Your task to perform on an android device: open wifi settings Image 0: 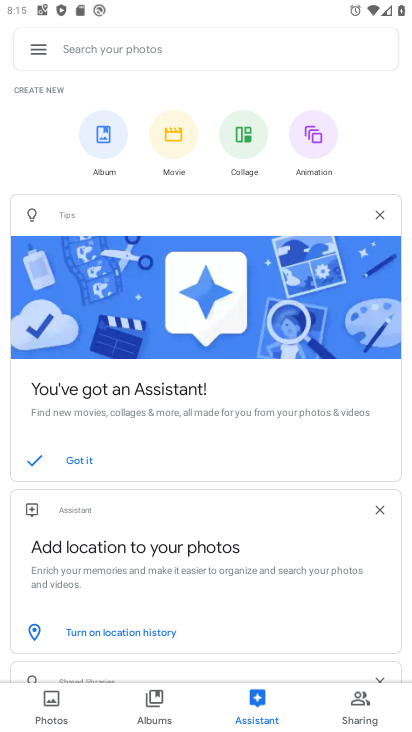
Step 0: press home button
Your task to perform on an android device: open wifi settings Image 1: 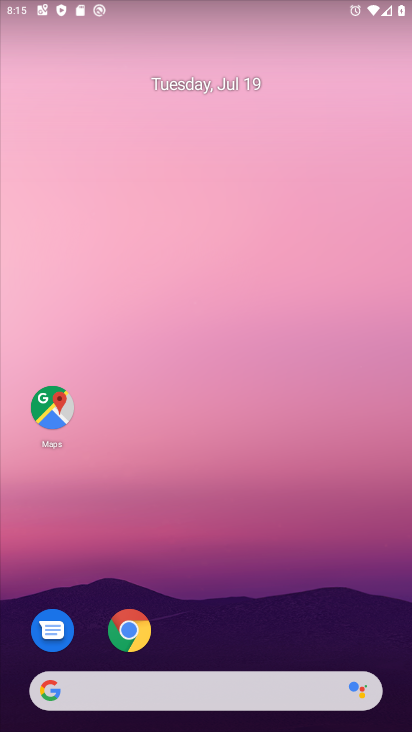
Step 1: drag from (211, 626) to (223, 228)
Your task to perform on an android device: open wifi settings Image 2: 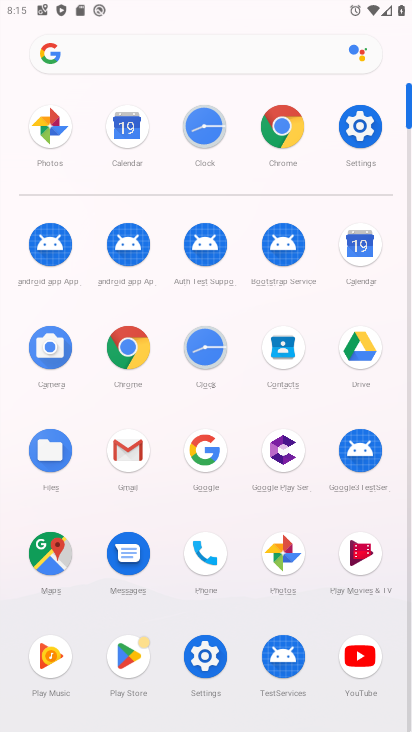
Step 2: click (362, 127)
Your task to perform on an android device: open wifi settings Image 3: 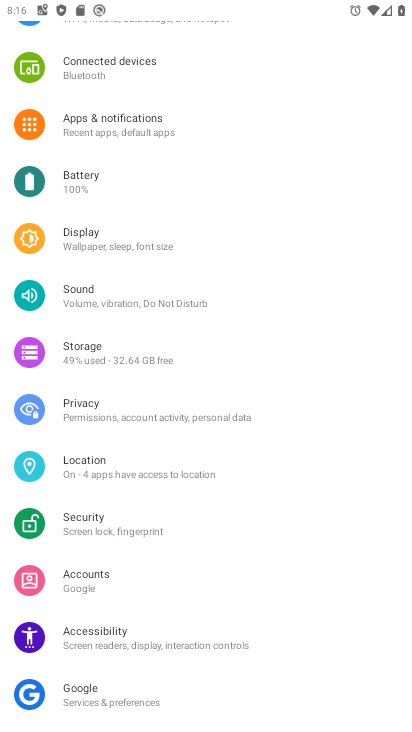
Step 3: drag from (285, 165) to (238, 441)
Your task to perform on an android device: open wifi settings Image 4: 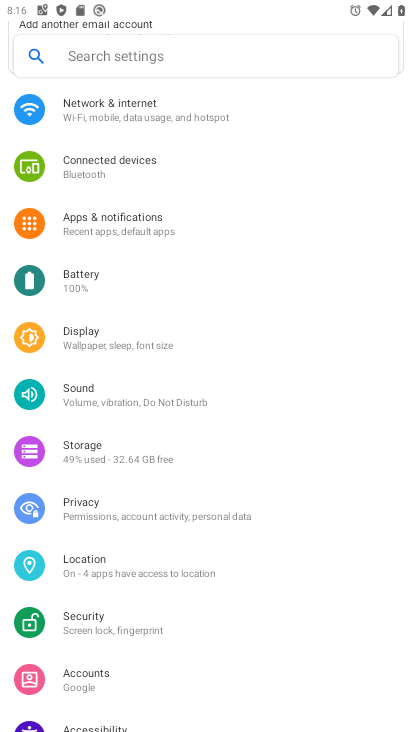
Step 4: click (122, 109)
Your task to perform on an android device: open wifi settings Image 5: 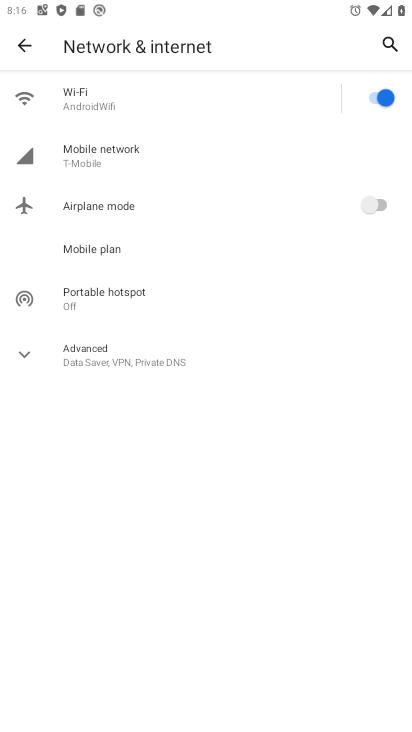
Step 5: click (127, 107)
Your task to perform on an android device: open wifi settings Image 6: 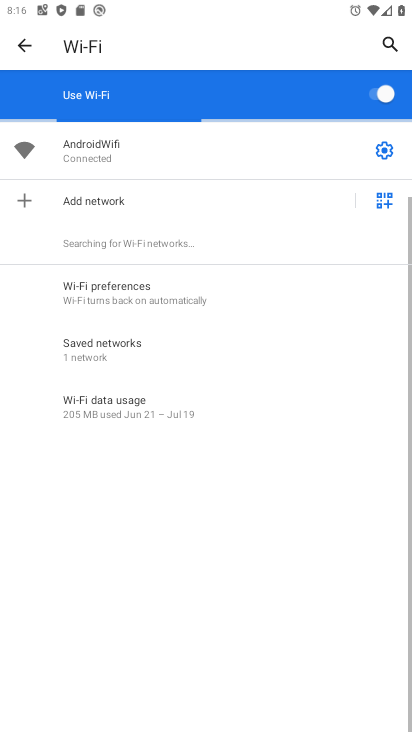
Step 6: task complete